Your task to perform on an android device: turn off sleep mode Image 0: 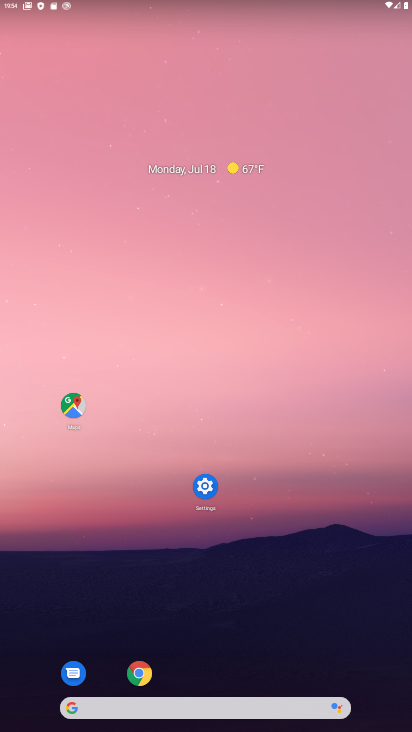
Step 0: click (252, 191)
Your task to perform on an android device: turn off sleep mode Image 1: 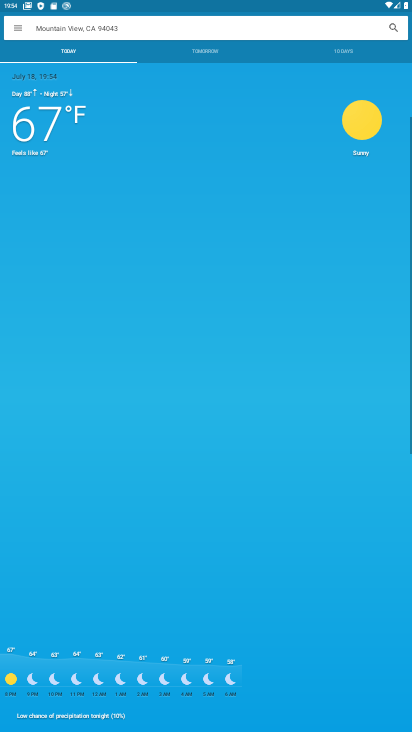
Step 1: press back button
Your task to perform on an android device: turn off sleep mode Image 2: 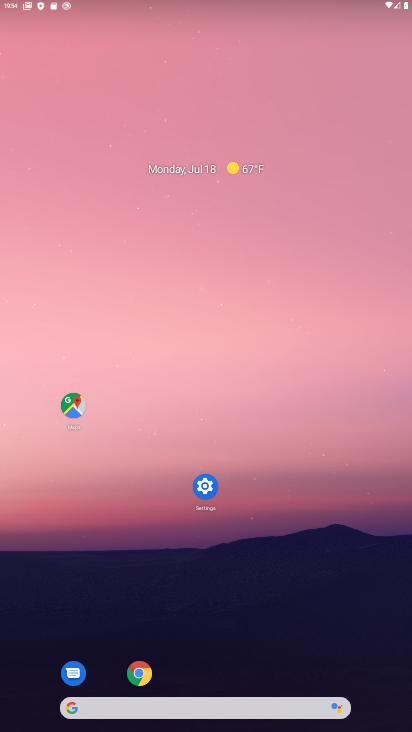
Step 2: drag from (183, 631) to (145, 107)
Your task to perform on an android device: turn off sleep mode Image 3: 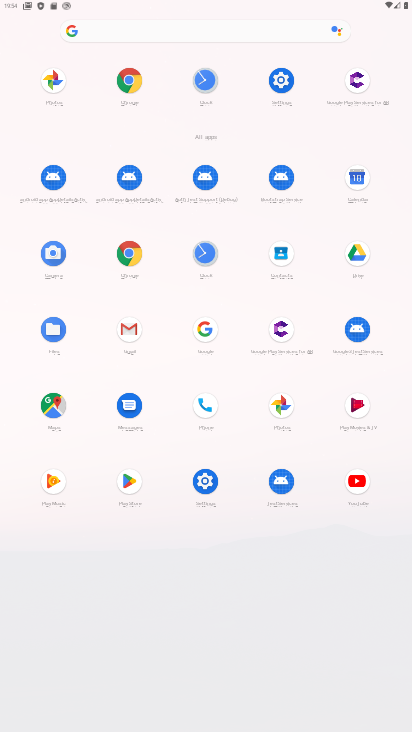
Step 3: drag from (187, 526) to (171, 171)
Your task to perform on an android device: turn off sleep mode Image 4: 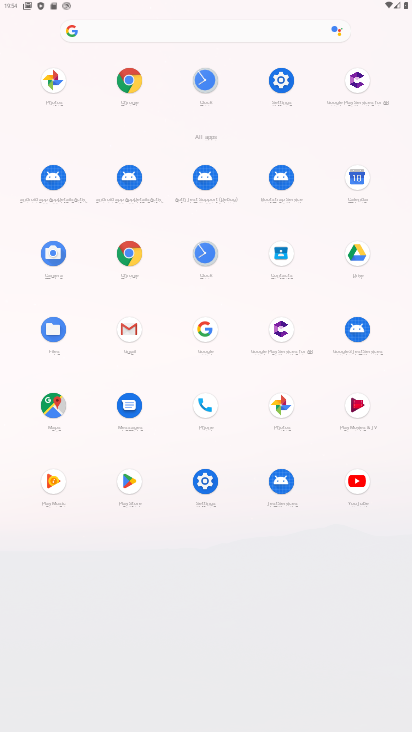
Step 4: click (204, 485)
Your task to perform on an android device: turn off sleep mode Image 5: 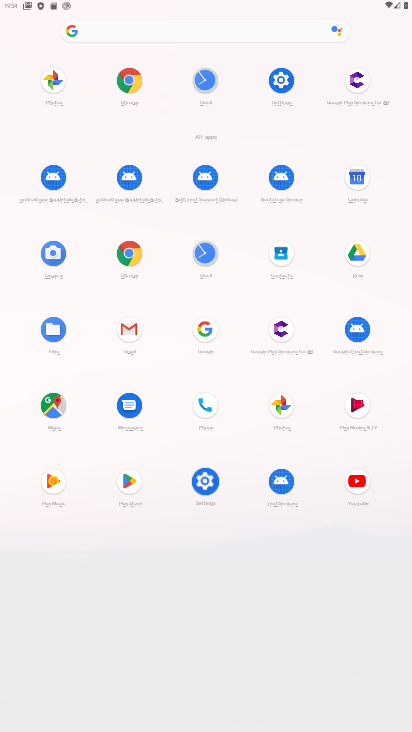
Step 5: click (204, 485)
Your task to perform on an android device: turn off sleep mode Image 6: 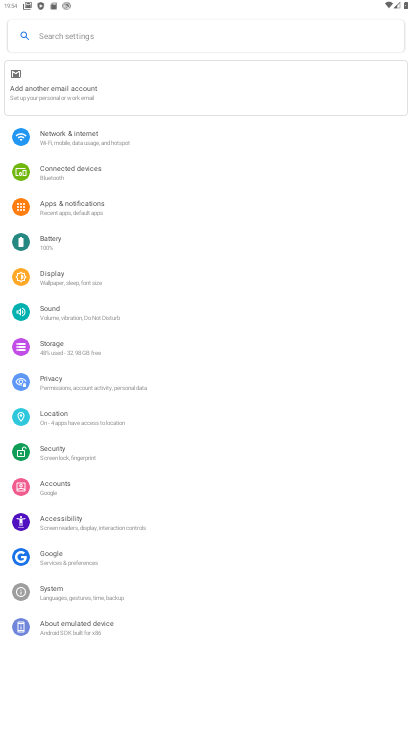
Step 6: click (51, 278)
Your task to perform on an android device: turn off sleep mode Image 7: 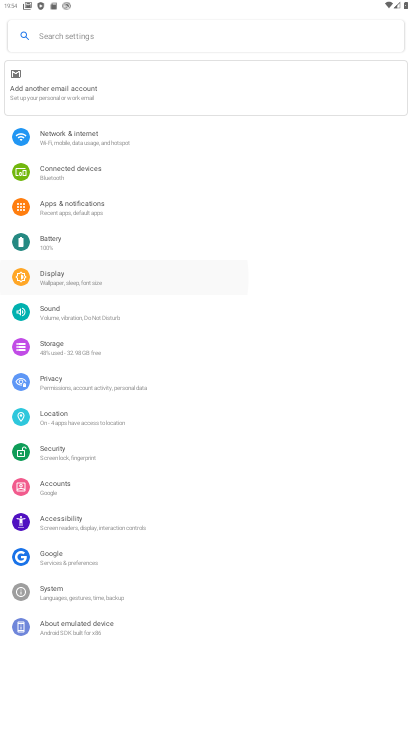
Step 7: click (50, 278)
Your task to perform on an android device: turn off sleep mode Image 8: 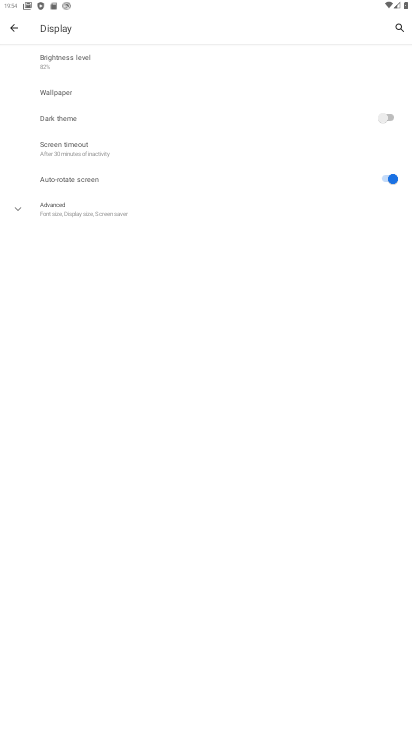
Step 8: click (66, 148)
Your task to perform on an android device: turn off sleep mode Image 9: 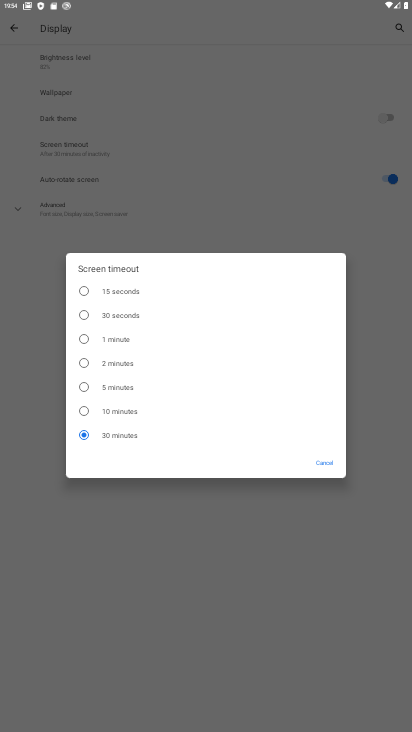
Step 9: task complete